Your task to perform on an android device: Open Google Maps and go to "Timeline" Image 0: 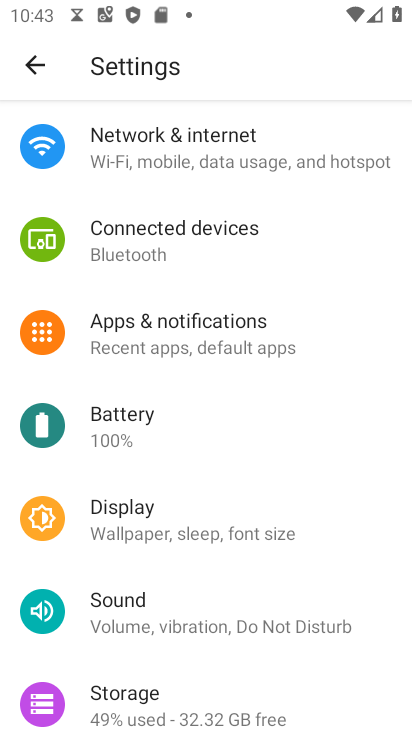
Step 0: press home button
Your task to perform on an android device: Open Google Maps and go to "Timeline" Image 1: 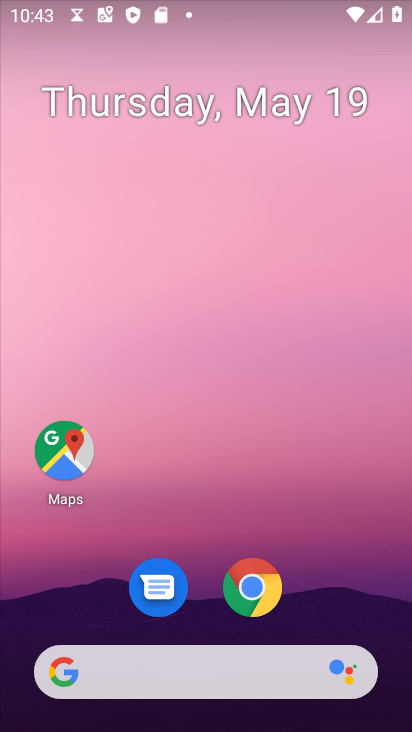
Step 1: click (75, 451)
Your task to perform on an android device: Open Google Maps and go to "Timeline" Image 2: 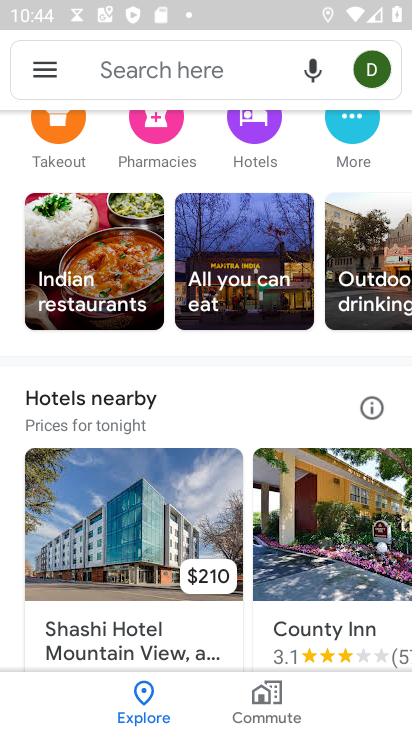
Step 2: click (63, 67)
Your task to perform on an android device: Open Google Maps and go to "Timeline" Image 3: 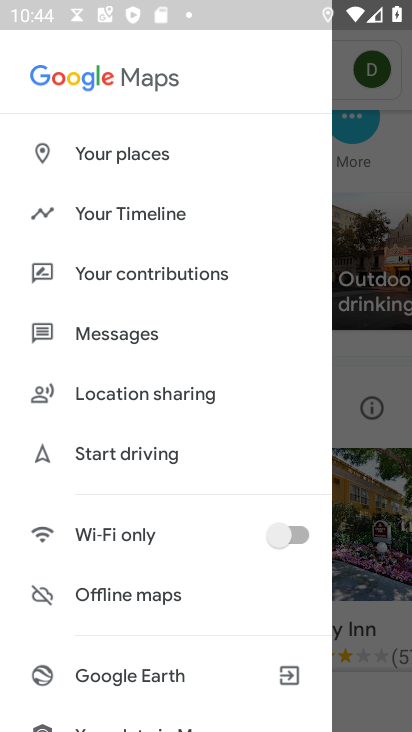
Step 3: click (132, 209)
Your task to perform on an android device: Open Google Maps and go to "Timeline" Image 4: 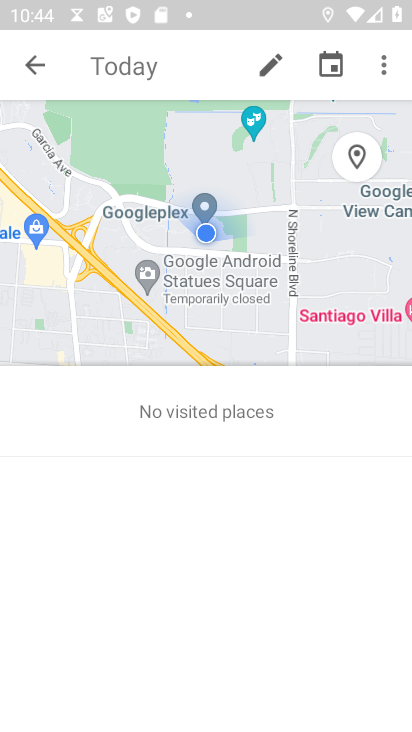
Step 4: task complete